Your task to perform on an android device: toggle show notifications on the lock screen Image 0: 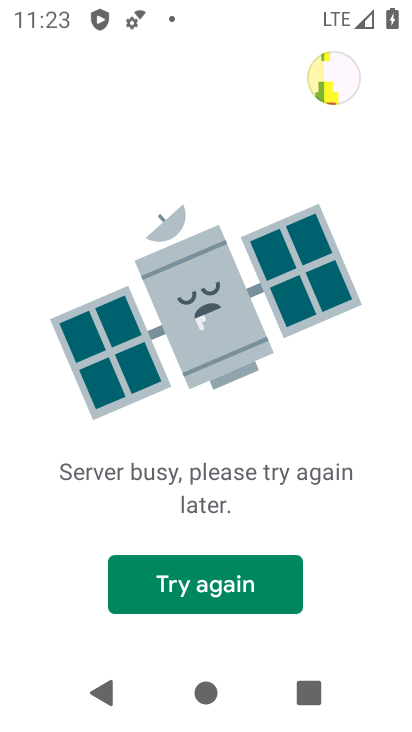
Step 0: press back button
Your task to perform on an android device: toggle show notifications on the lock screen Image 1: 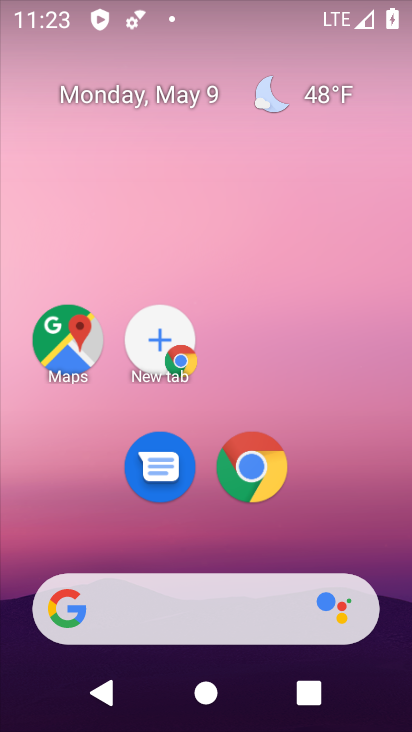
Step 1: drag from (272, 466) to (100, 70)
Your task to perform on an android device: toggle show notifications on the lock screen Image 2: 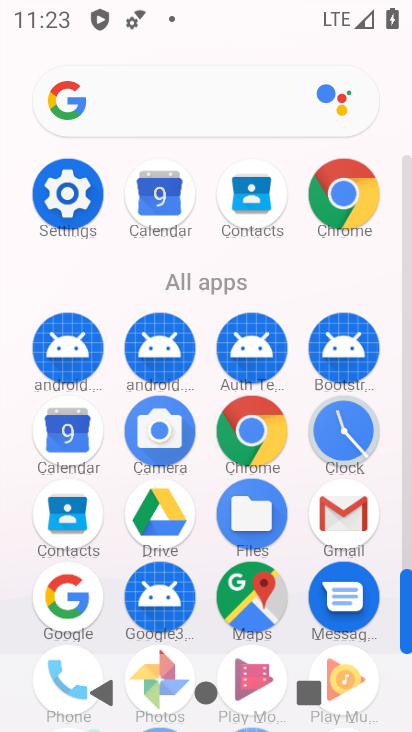
Step 2: click (62, 173)
Your task to perform on an android device: toggle show notifications on the lock screen Image 3: 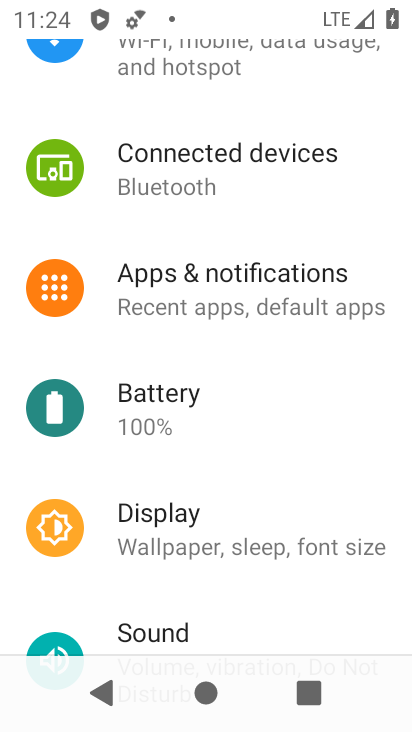
Step 3: drag from (177, 273) to (170, 638)
Your task to perform on an android device: toggle show notifications on the lock screen Image 4: 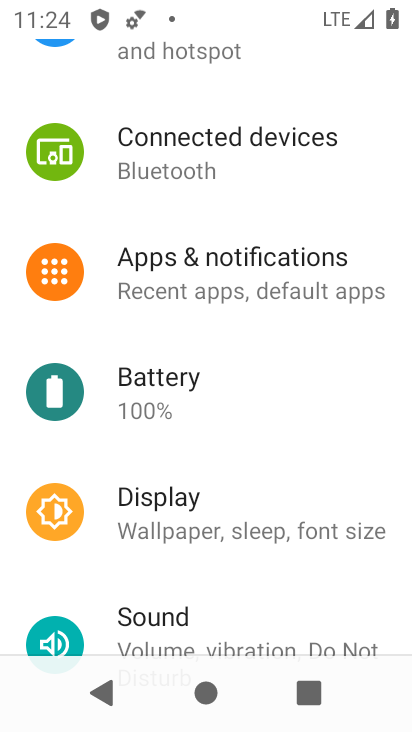
Step 4: click (198, 276)
Your task to perform on an android device: toggle show notifications on the lock screen Image 5: 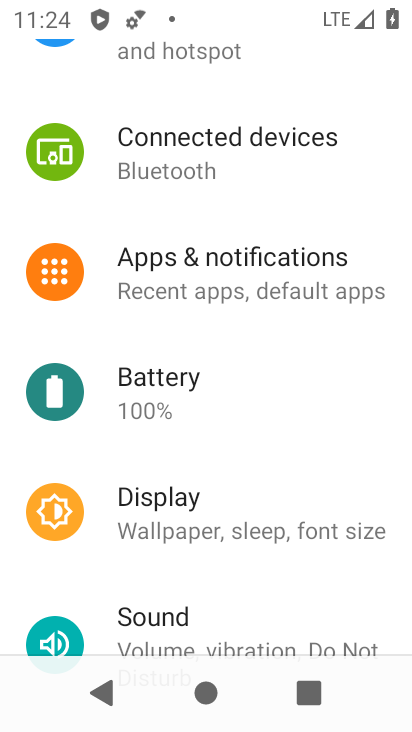
Step 5: click (198, 276)
Your task to perform on an android device: toggle show notifications on the lock screen Image 6: 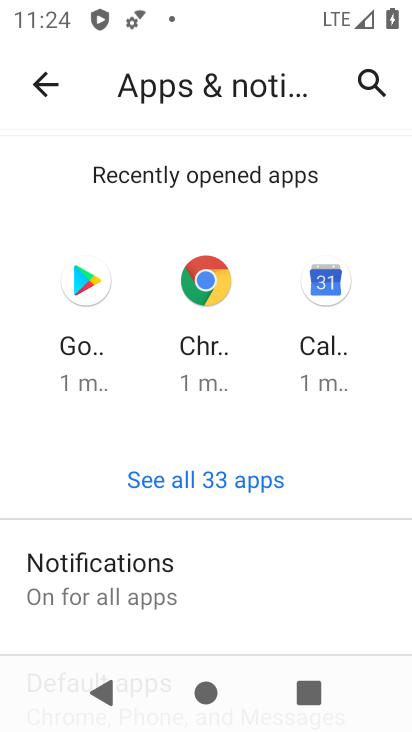
Step 6: drag from (116, 571) to (106, 181)
Your task to perform on an android device: toggle show notifications on the lock screen Image 7: 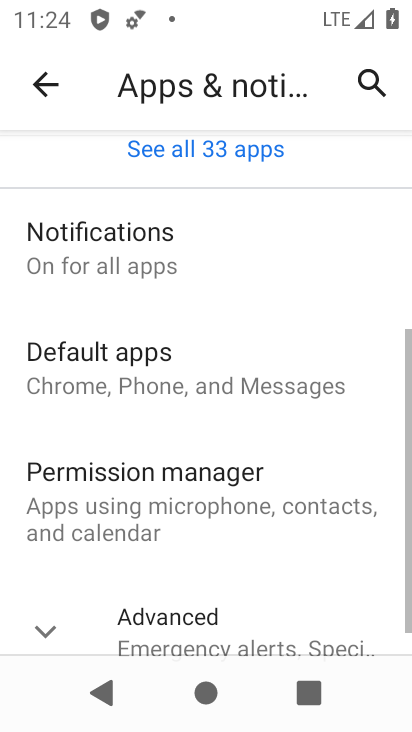
Step 7: drag from (198, 468) to (195, 207)
Your task to perform on an android device: toggle show notifications on the lock screen Image 8: 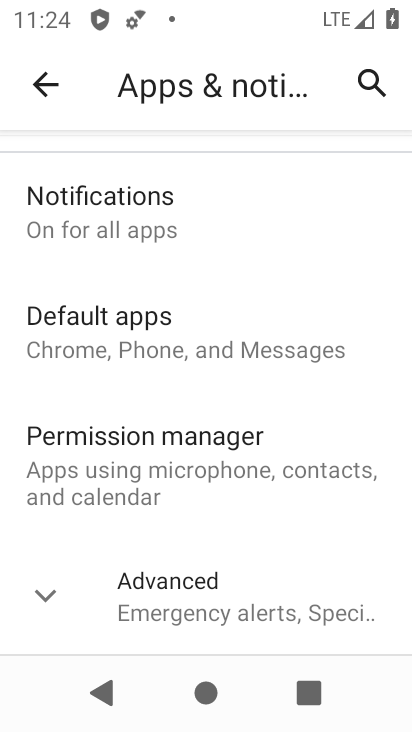
Step 8: click (101, 204)
Your task to perform on an android device: toggle show notifications on the lock screen Image 9: 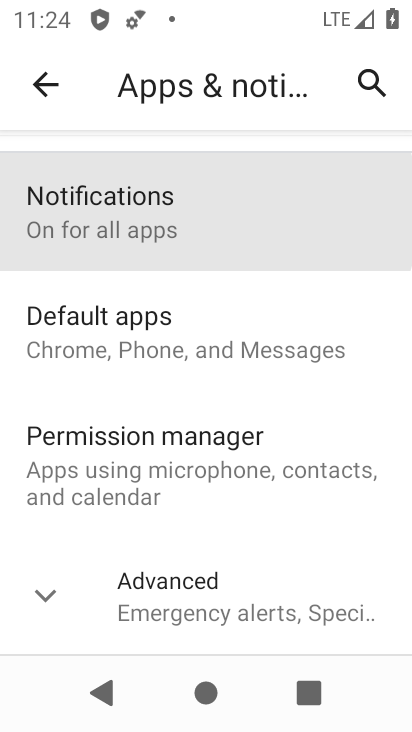
Step 9: click (101, 204)
Your task to perform on an android device: toggle show notifications on the lock screen Image 10: 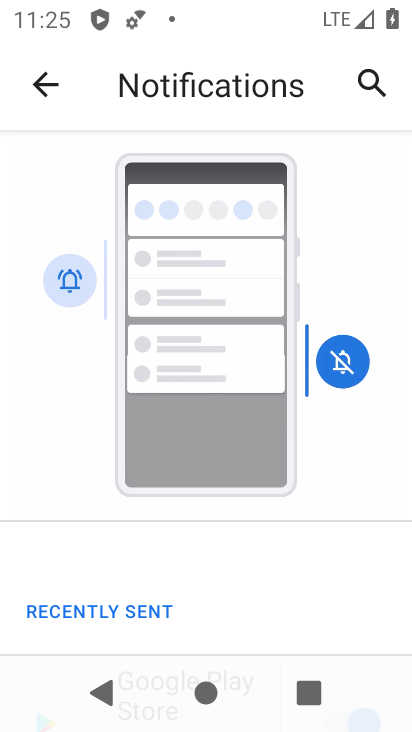
Step 10: drag from (201, 534) to (124, 69)
Your task to perform on an android device: toggle show notifications on the lock screen Image 11: 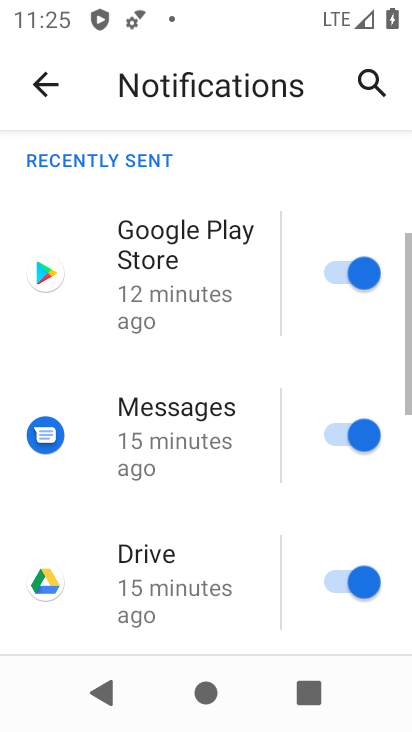
Step 11: drag from (158, 280) to (103, 31)
Your task to perform on an android device: toggle show notifications on the lock screen Image 12: 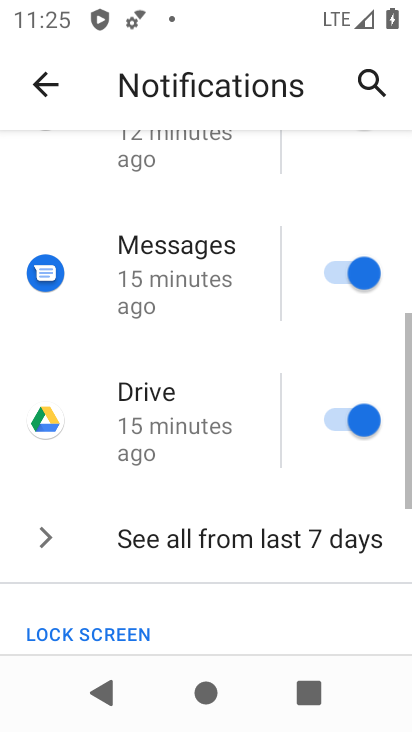
Step 12: drag from (204, 368) to (147, 119)
Your task to perform on an android device: toggle show notifications on the lock screen Image 13: 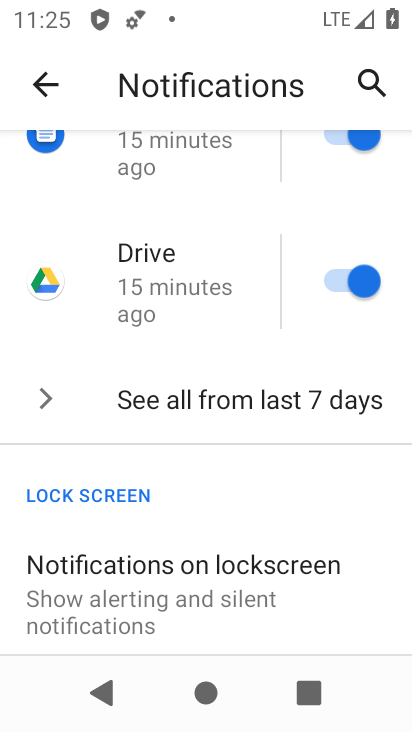
Step 13: drag from (173, 395) to (141, 111)
Your task to perform on an android device: toggle show notifications on the lock screen Image 14: 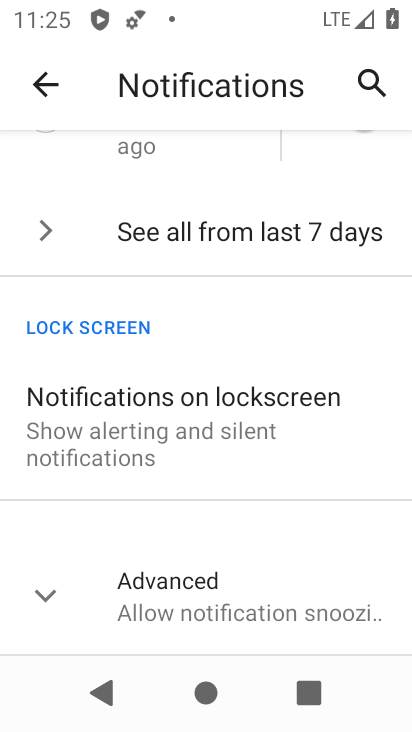
Step 14: click (156, 412)
Your task to perform on an android device: toggle show notifications on the lock screen Image 15: 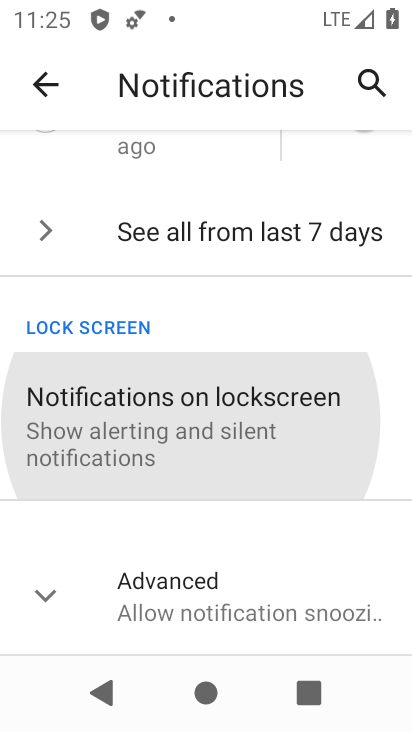
Step 15: click (156, 413)
Your task to perform on an android device: toggle show notifications on the lock screen Image 16: 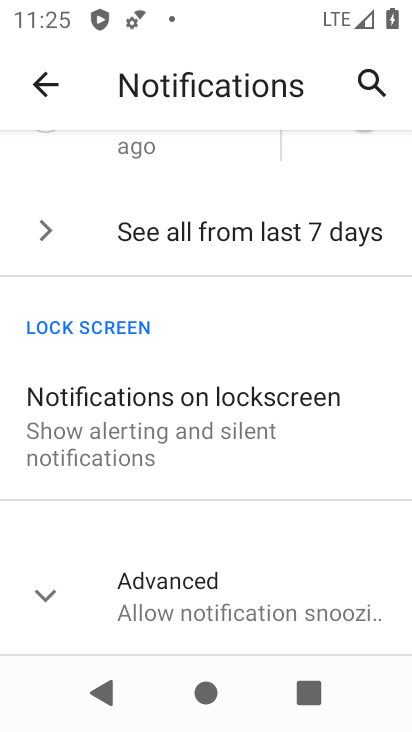
Step 16: click (155, 423)
Your task to perform on an android device: toggle show notifications on the lock screen Image 17: 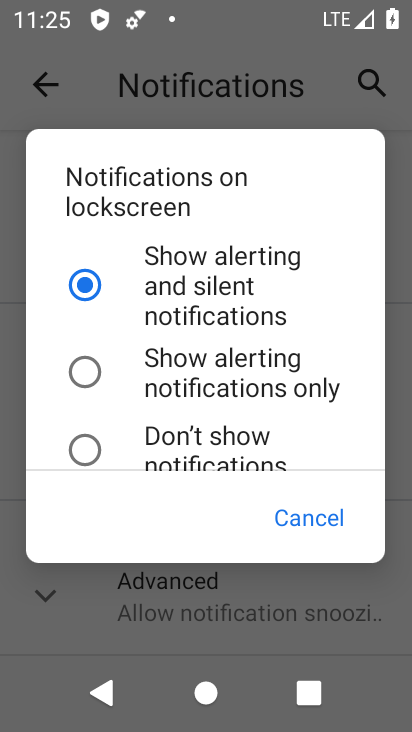
Step 17: click (80, 367)
Your task to perform on an android device: toggle show notifications on the lock screen Image 18: 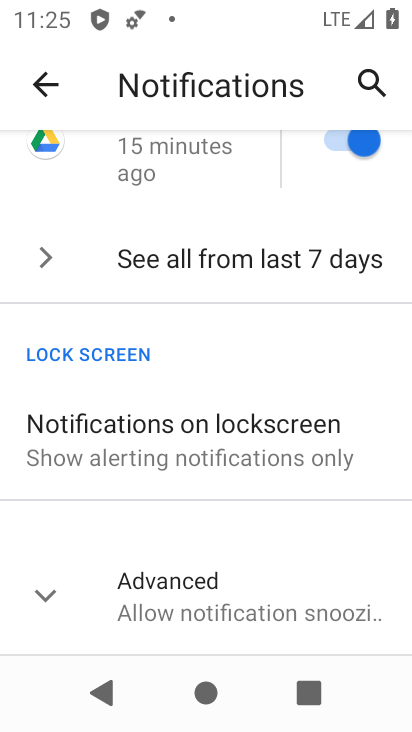
Step 18: task complete